Your task to perform on an android device: Open the Play Movies app and select the watchlist tab. Image 0: 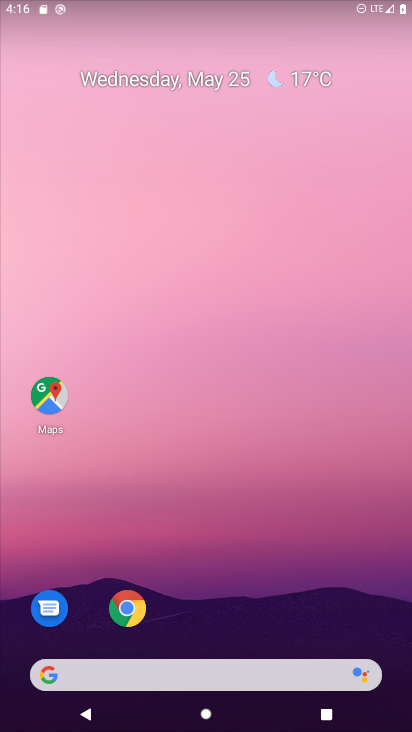
Step 0: drag from (360, 615) to (295, 131)
Your task to perform on an android device: Open the Play Movies app and select the watchlist tab. Image 1: 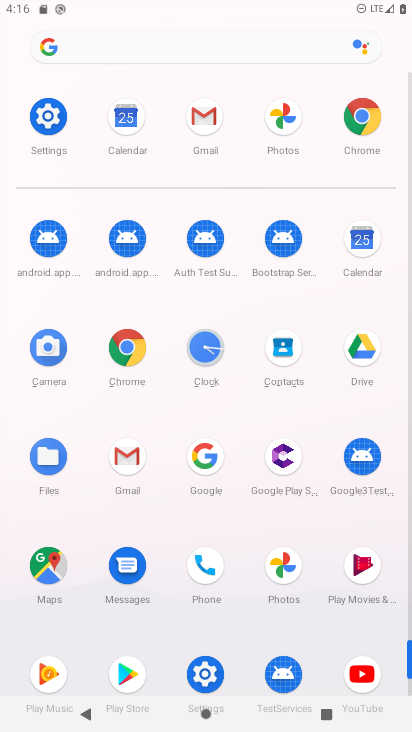
Step 1: click (205, 678)
Your task to perform on an android device: Open the Play Movies app and select the watchlist tab. Image 2: 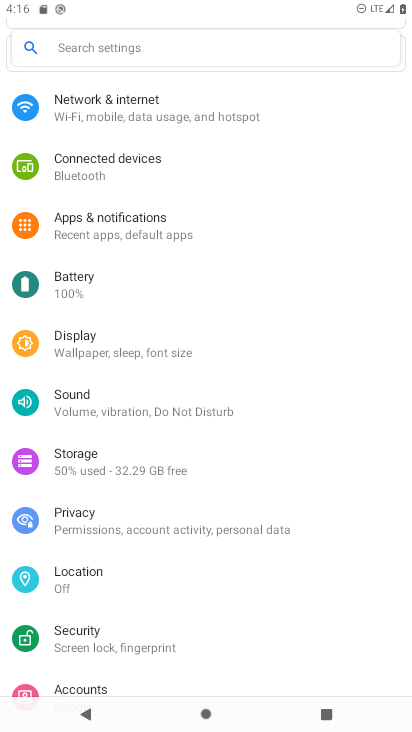
Step 2: press home button
Your task to perform on an android device: Open the Play Movies app and select the watchlist tab. Image 3: 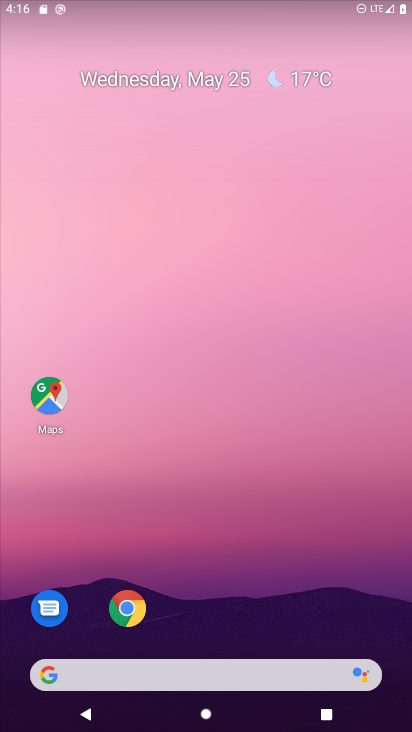
Step 3: drag from (369, 631) to (297, 158)
Your task to perform on an android device: Open the Play Movies app and select the watchlist tab. Image 4: 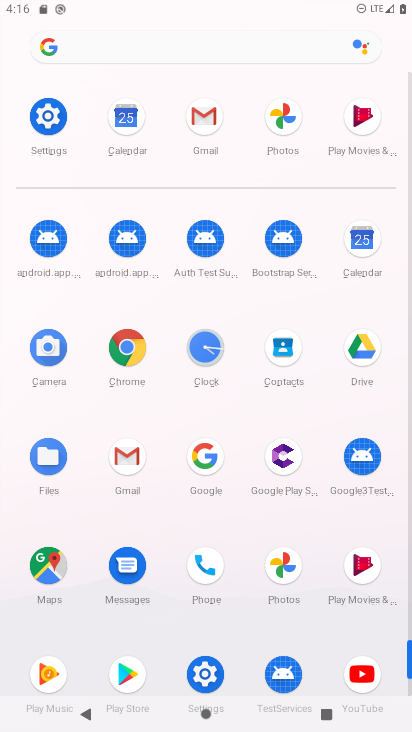
Step 4: click (355, 564)
Your task to perform on an android device: Open the Play Movies app and select the watchlist tab. Image 5: 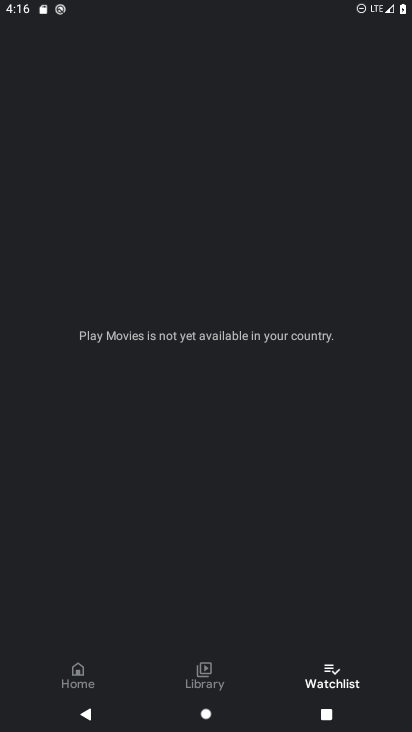
Step 5: task complete